Your task to perform on an android device: add a label to a message in the gmail app Image 0: 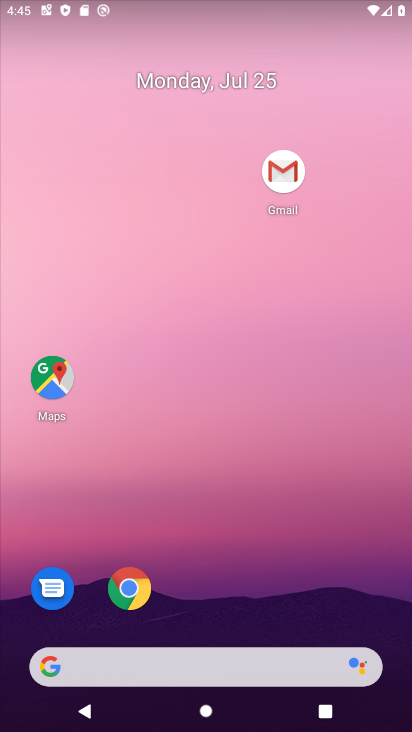
Step 0: drag from (287, 612) to (270, 110)
Your task to perform on an android device: add a label to a message in the gmail app Image 1: 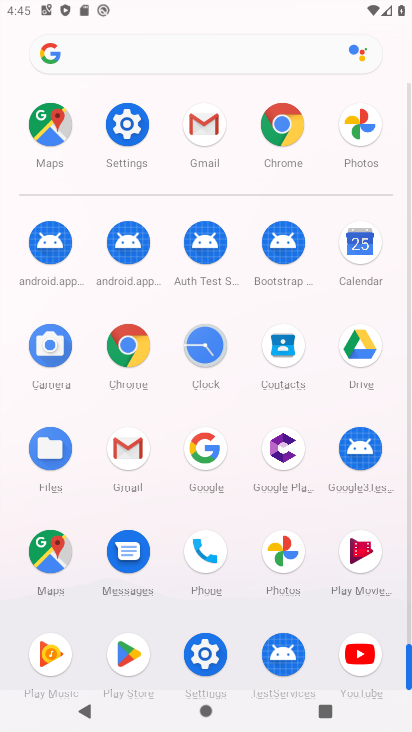
Step 1: click (210, 130)
Your task to perform on an android device: add a label to a message in the gmail app Image 2: 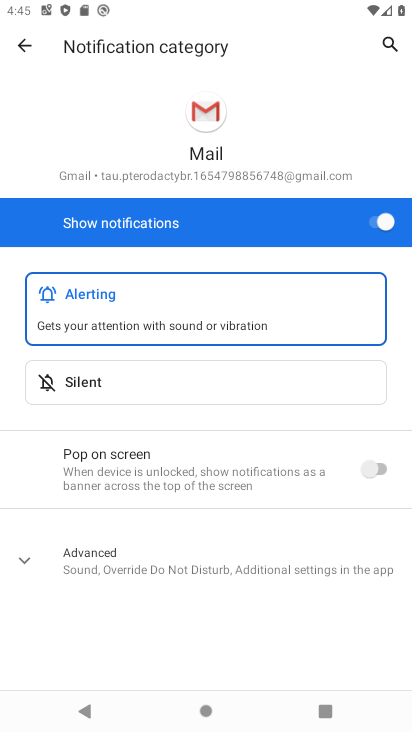
Step 2: click (18, 48)
Your task to perform on an android device: add a label to a message in the gmail app Image 3: 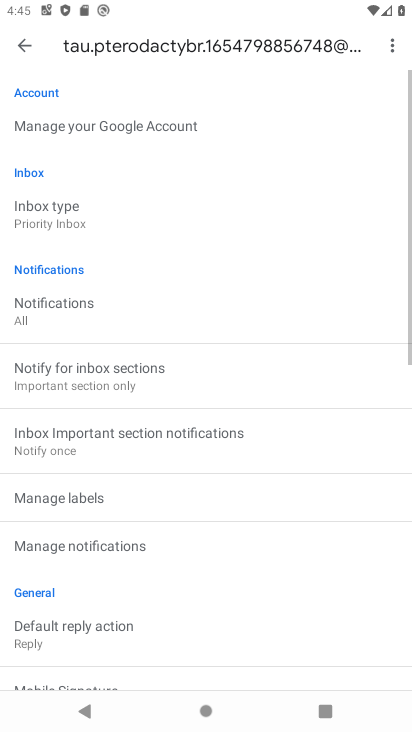
Step 3: click (18, 48)
Your task to perform on an android device: add a label to a message in the gmail app Image 4: 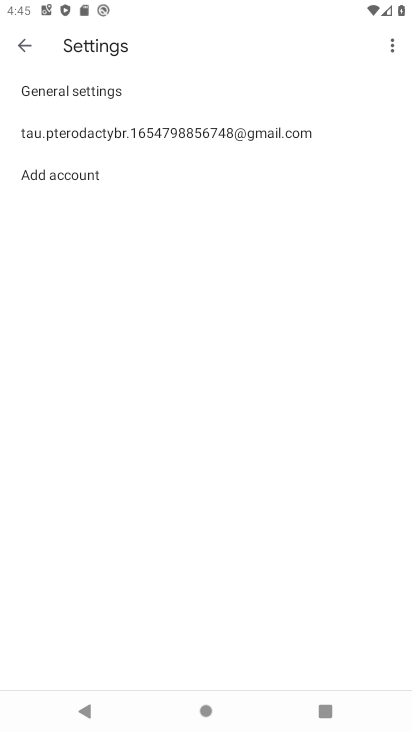
Step 4: click (18, 48)
Your task to perform on an android device: add a label to a message in the gmail app Image 5: 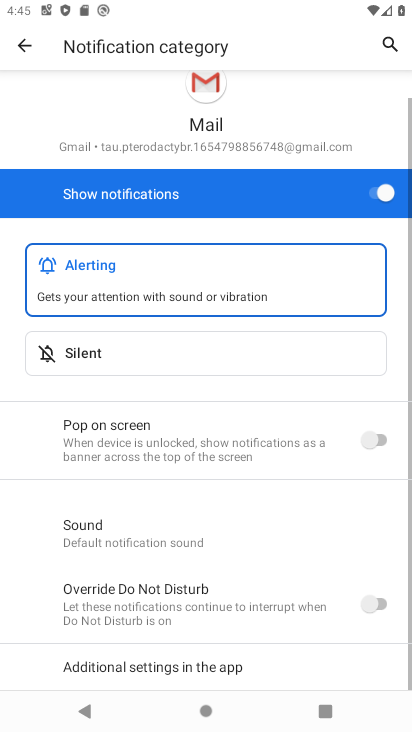
Step 5: click (18, 48)
Your task to perform on an android device: add a label to a message in the gmail app Image 6: 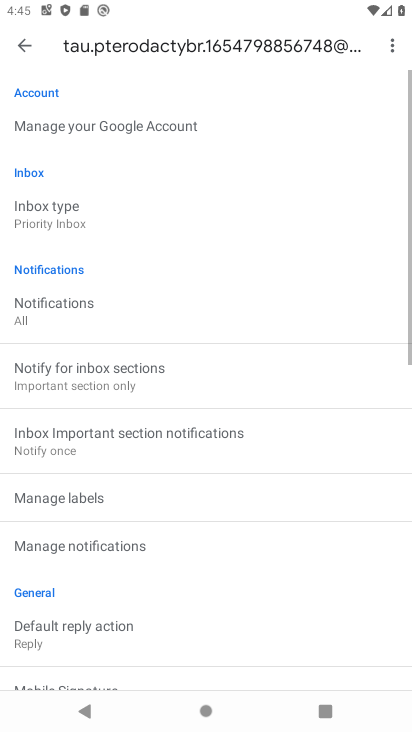
Step 6: click (18, 48)
Your task to perform on an android device: add a label to a message in the gmail app Image 7: 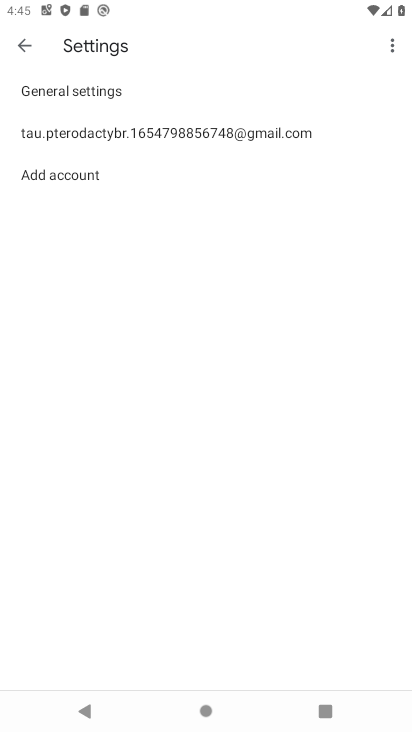
Step 7: click (18, 48)
Your task to perform on an android device: add a label to a message in the gmail app Image 8: 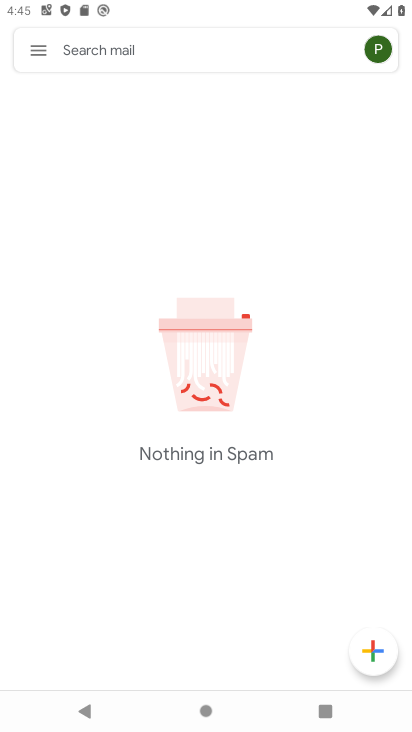
Step 8: click (18, 48)
Your task to perform on an android device: add a label to a message in the gmail app Image 9: 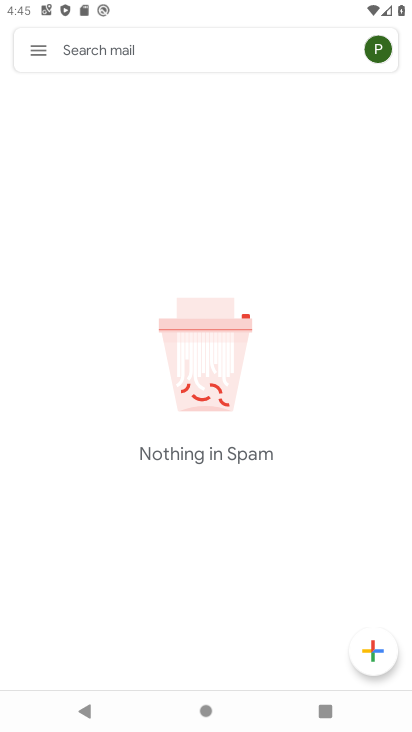
Step 9: click (41, 47)
Your task to perform on an android device: add a label to a message in the gmail app Image 10: 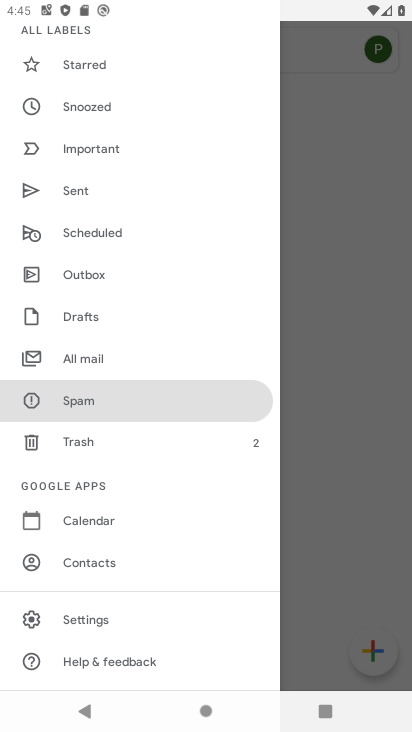
Step 10: click (98, 354)
Your task to perform on an android device: add a label to a message in the gmail app Image 11: 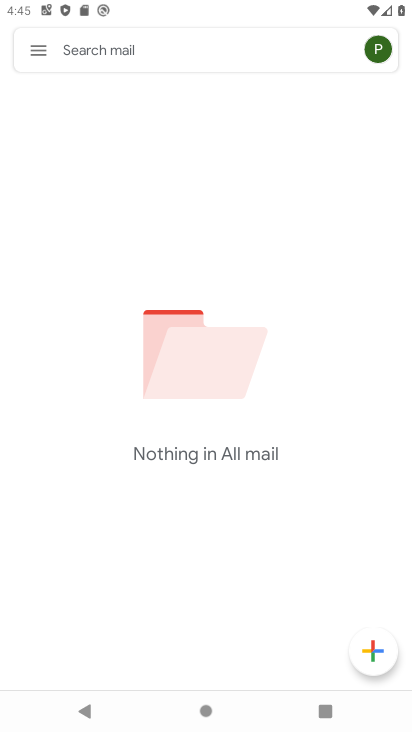
Step 11: task complete